Your task to perform on an android device: open app "Firefox Browser" (install if not already installed), go to login, and select forgot password Image 0: 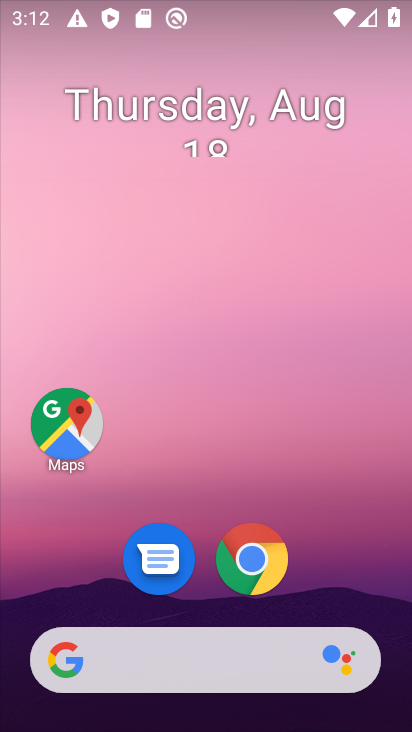
Step 0: drag from (255, 578) to (194, 6)
Your task to perform on an android device: open app "Firefox Browser" (install if not already installed), go to login, and select forgot password Image 1: 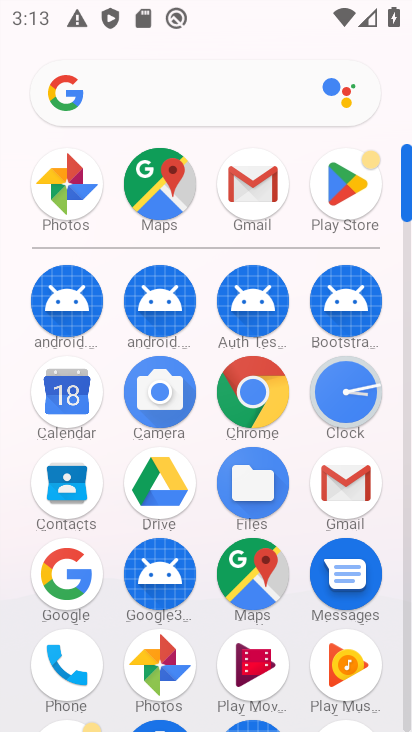
Step 1: click (364, 188)
Your task to perform on an android device: open app "Firefox Browser" (install if not already installed), go to login, and select forgot password Image 2: 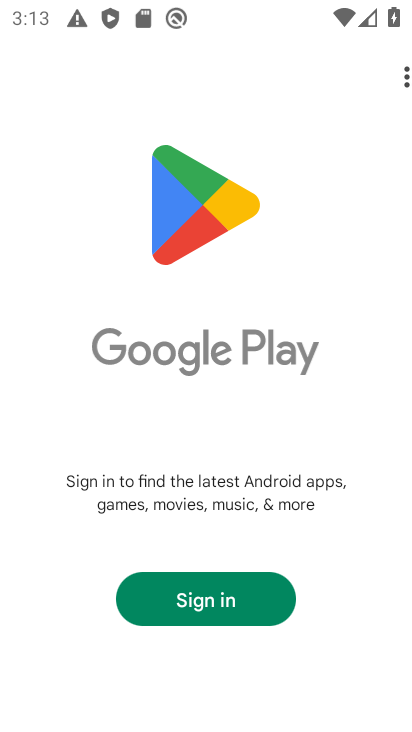
Step 2: click (198, 608)
Your task to perform on an android device: open app "Firefox Browser" (install if not already installed), go to login, and select forgot password Image 3: 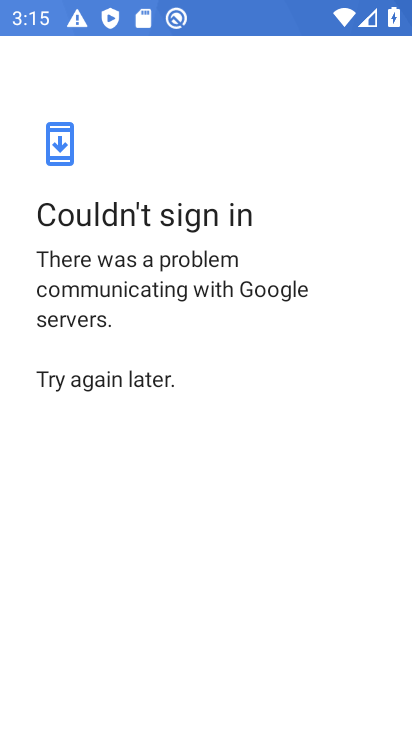
Step 3: task complete